Your task to perform on an android device: turn pop-ups off in chrome Image 0: 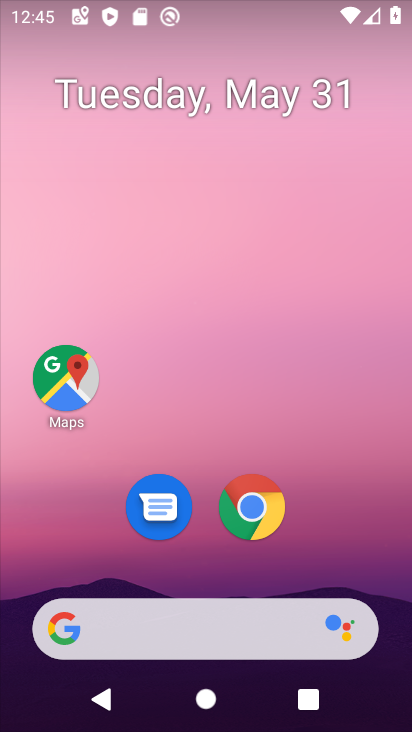
Step 0: drag from (327, 534) to (333, 2)
Your task to perform on an android device: turn pop-ups off in chrome Image 1: 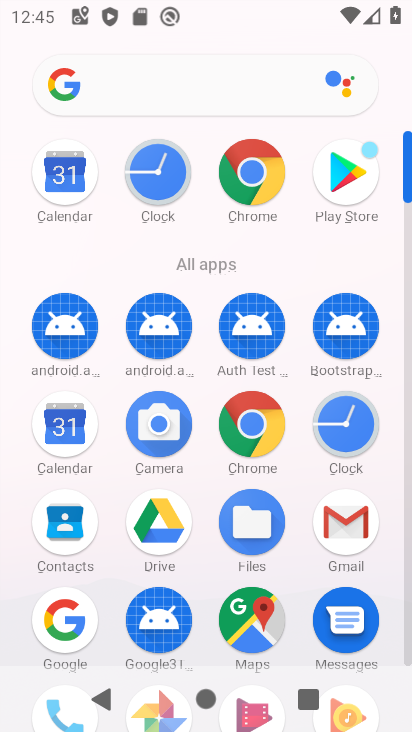
Step 1: click (248, 169)
Your task to perform on an android device: turn pop-ups off in chrome Image 2: 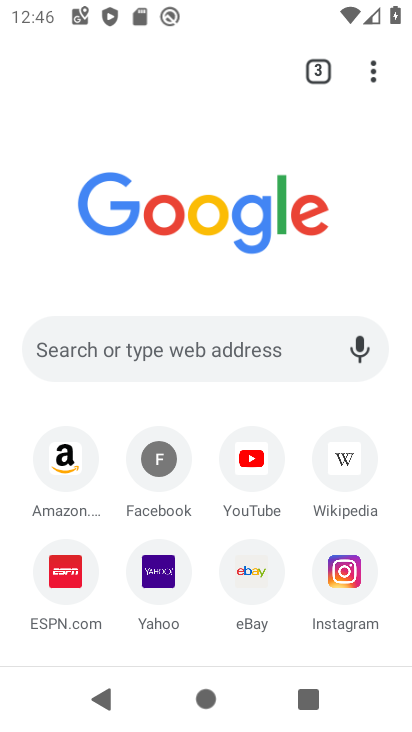
Step 2: drag from (377, 67) to (155, 494)
Your task to perform on an android device: turn pop-ups off in chrome Image 3: 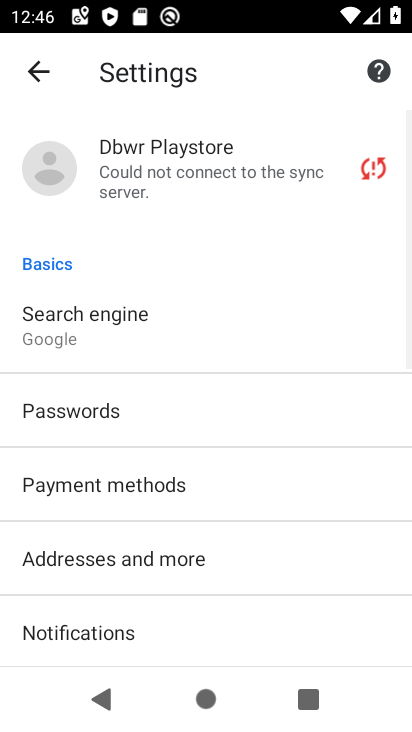
Step 3: drag from (243, 610) to (228, 110)
Your task to perform on an android device: turn pop-ups off in chrome Image 4: 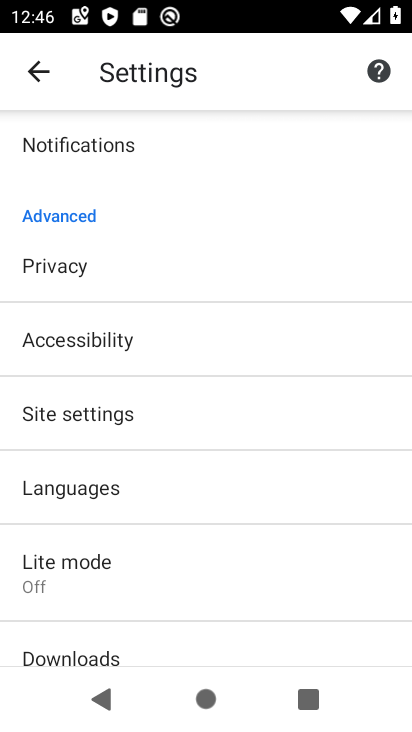
Step 4: click (147, 428)
Your task to perform on an android device: turn pop-ups off in chrome Image 5: 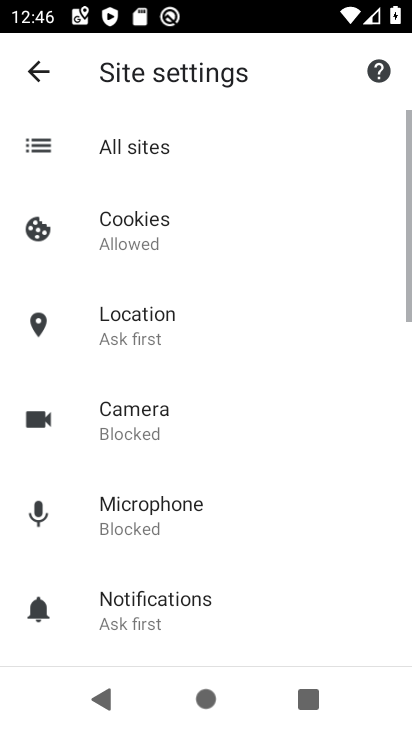
Step 5: drag from (181, 586) to (174, 189)
Your task to perform on an android device: turn pop-ups off in chrome Image 6: 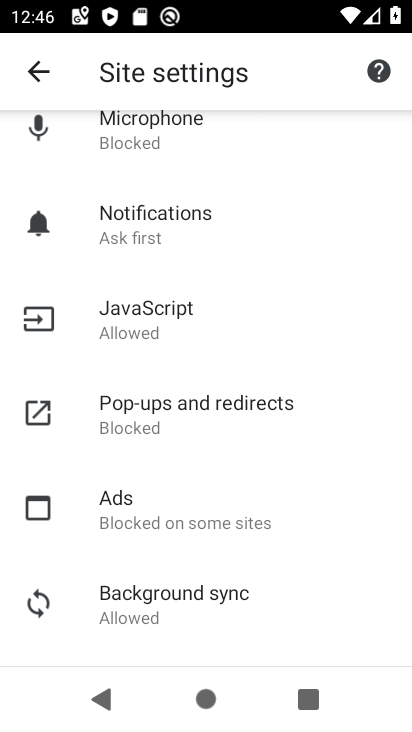
Step 6: click (170, 389)
Your task to perform on an android device: turn pop-ups off in chrome Image 7: 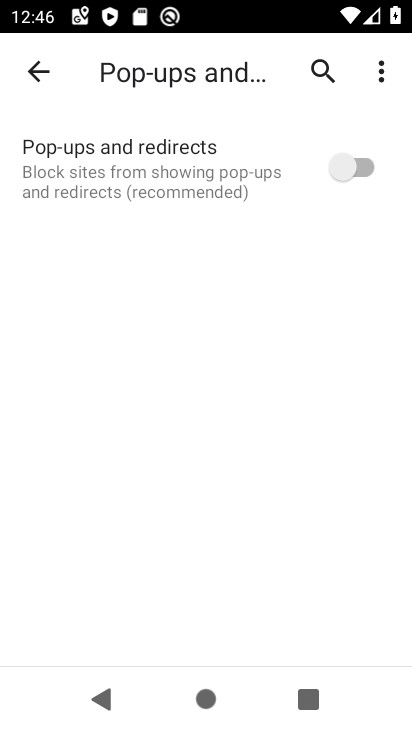
Step 7: task complete